Your task to perform on an android device: turn off smart reply in the gmail app Image 0: 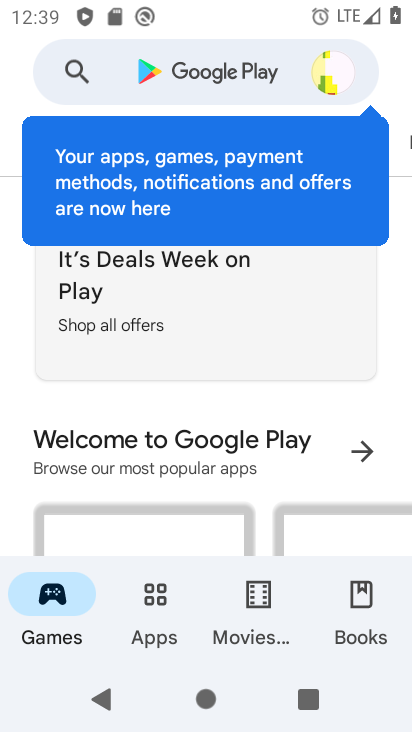
Step 0: press home button
Your task to perform on an android device: turn off smart reply in the gmail app Image 1: 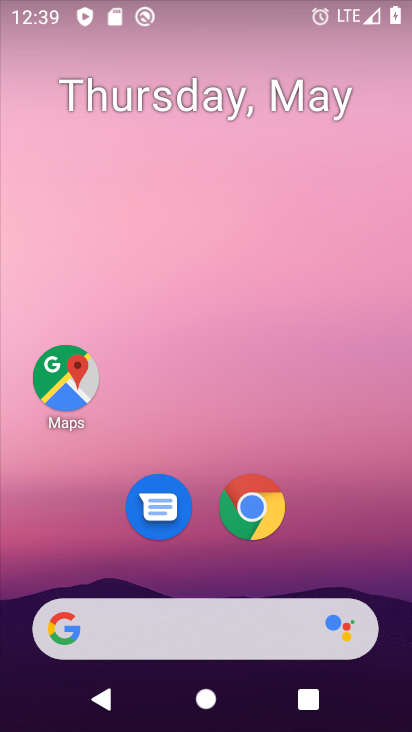
Step 1: drag from (197, 520) to (215, 291)
Your task to perform on an android device: turn off smart reply in the gmail app Image 2: 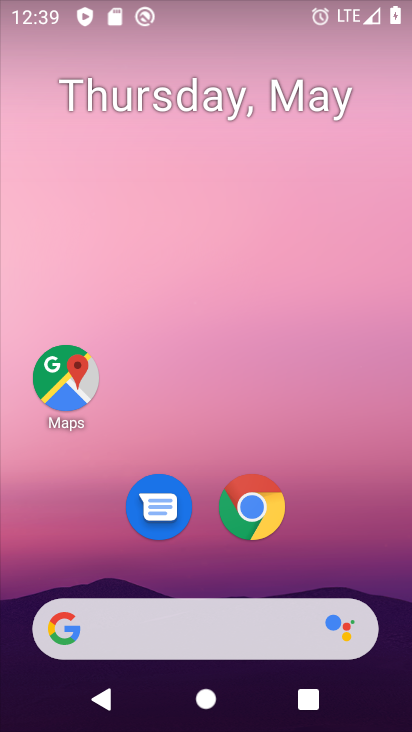
Step 2: drag from (216, 577) to (212, 216)
Your task to perform on an android device: turn off smart reply in the gmail app Image 3: 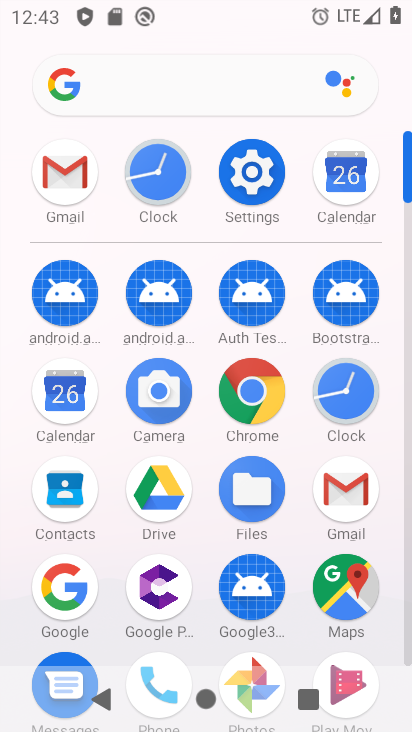
Step 3: click (43, 181)
Your task to perform on an android device: turn off smart reply in the gmail app Image 4: 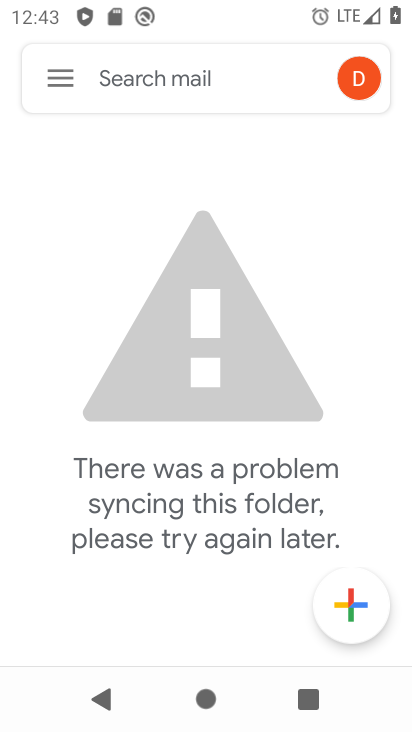
Step 4: click (61, 75)
Your task to perform on an android device: turn off smart reply in the gmail app Image 5: 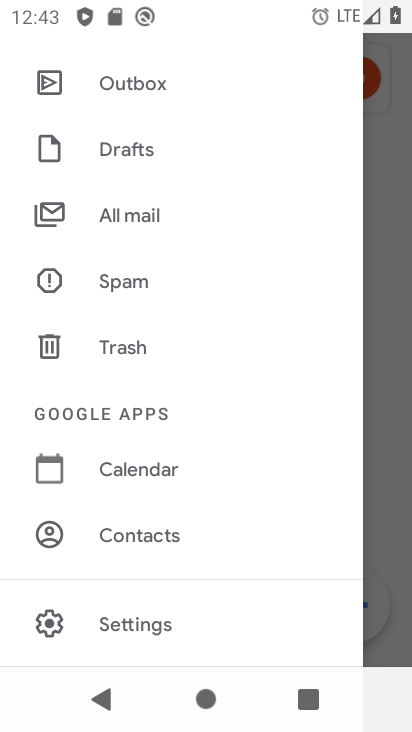
Step 5: click (147, 640)
Your task to perform on an android device: turn off smart reply in the gmail app Image 6: 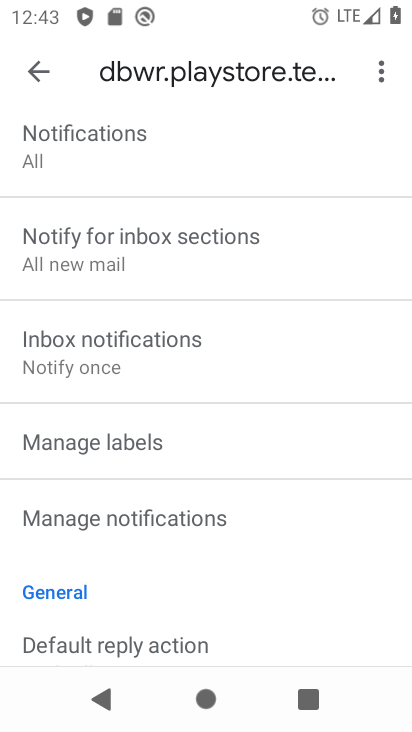
Step 6: task complete